Your task to perform on an android device: toggle translation in the chrome app Image 0: 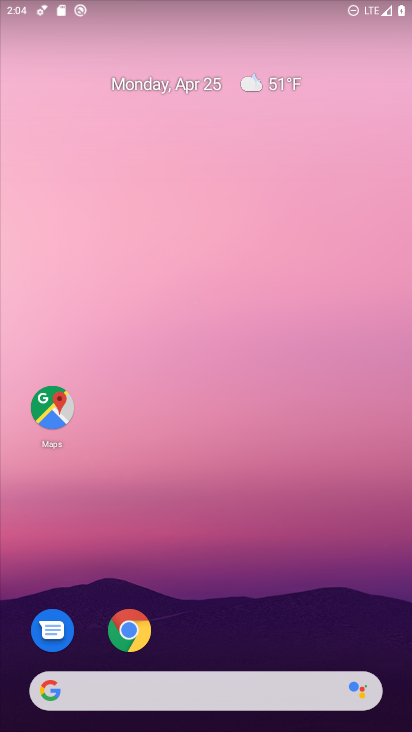
Step 0: drag from (298, 598) to (201, 38)
Your task to perform on an android device: toggle translation in the chrome app Image 1: 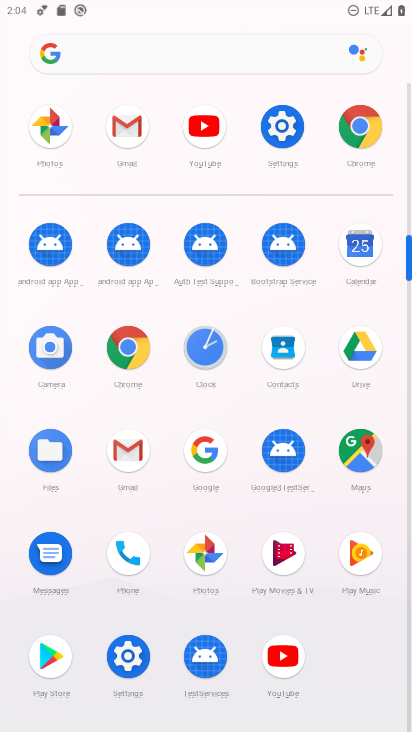
Step 1: click (382, 128)
Your task to perform on an android device: toggle translation in the chrome app Image 2: 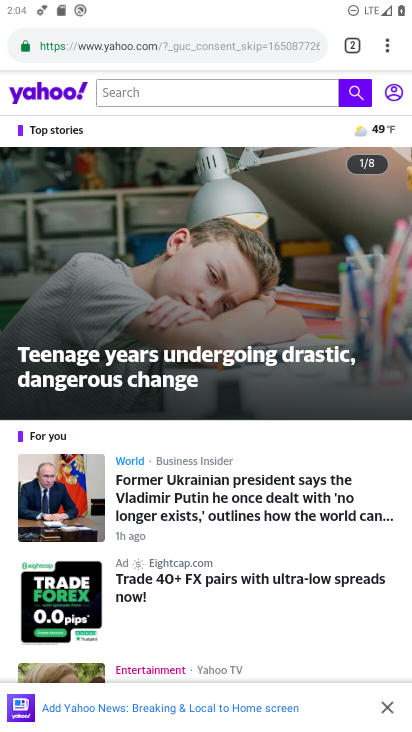
Step 2: drag from (395, 53) to (282, 543)
Your task to perform on an android device: toggle translation in the chrome app Image 3: 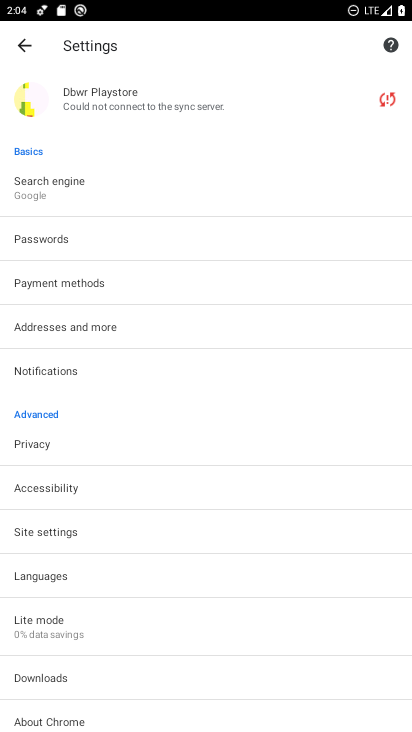
Step 3: drag from (158, 607) to (208, 140)
Your task to perform on an android device: toggle translation in the chrome app Image 4: 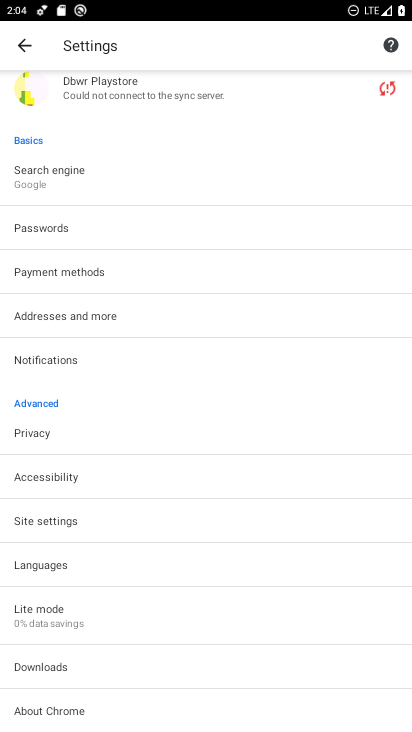
Step 4: click (55, 563)
Your task to perform on an android device: toggle translation in the chrome app Image 5: 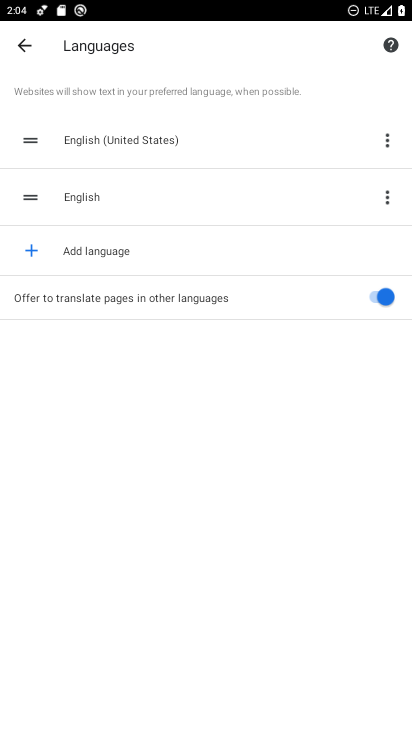
Step 5: click (376, 292)
Your task to perform on an android device: toggle translation in the chrome app Image 6: 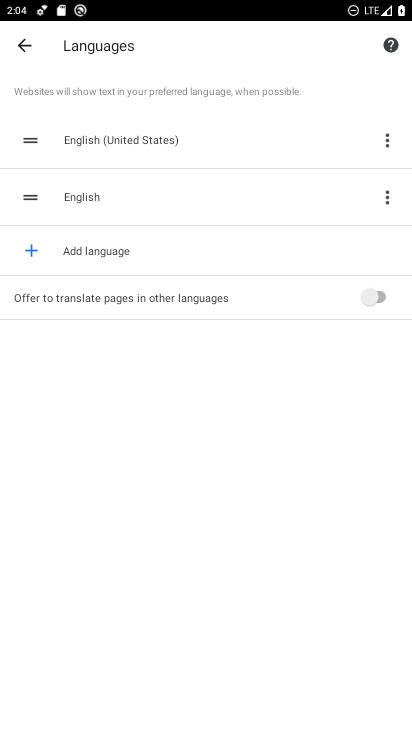
Step 6: task complete